Your task to perform on an android device: open app "Gmail" (install if not already installed) Image 0: 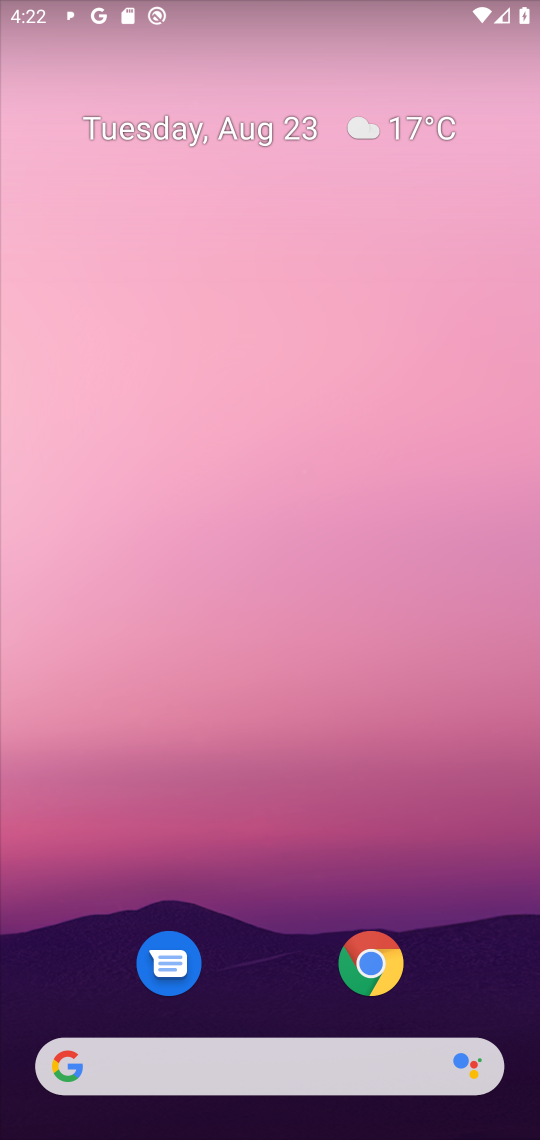
Step 0: press home button
Your task to perform on an android device: open app "Gmail" (install if not already installed) Image 1: 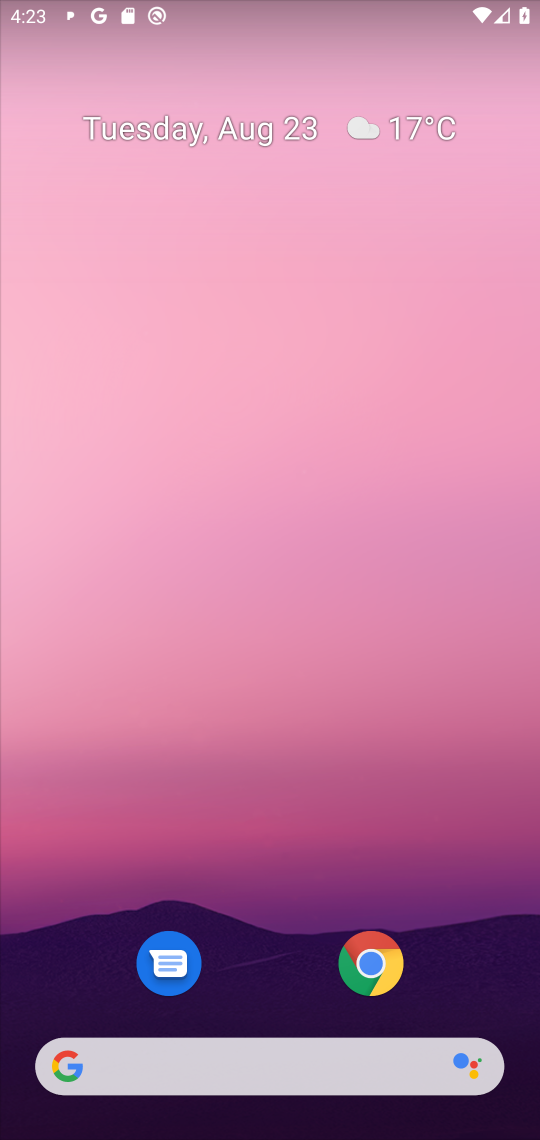
Step 1: drag from (259, 1009) to (173, 29)
Your task to perform on an android device: open app "Gmail" (install if not already installed) Image 2: 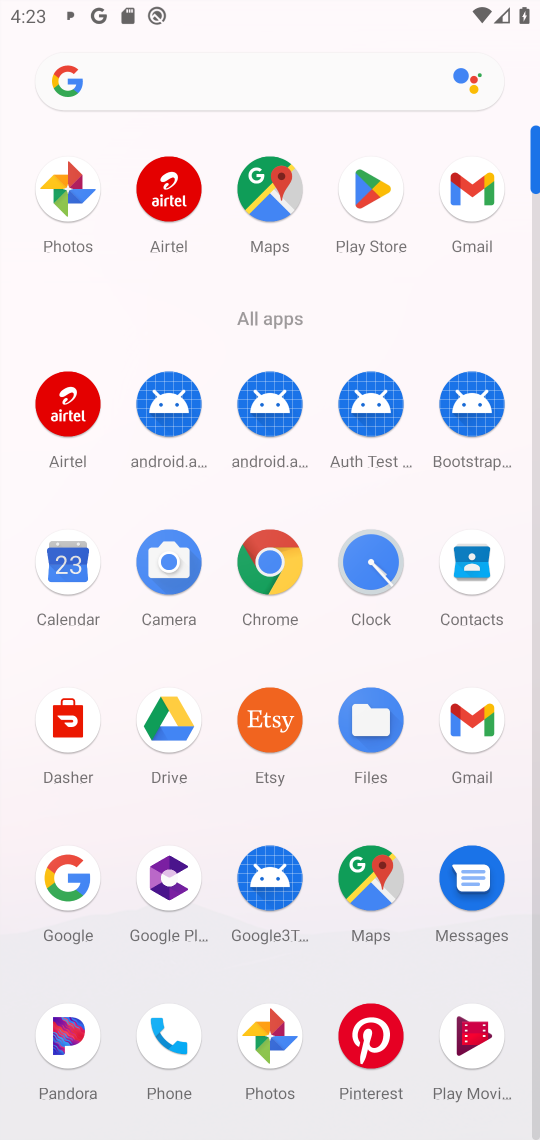
Step 2: click (475, 193)
Your task to perform on an android device: open app "Gmail" (install if not already installed) Image 3: 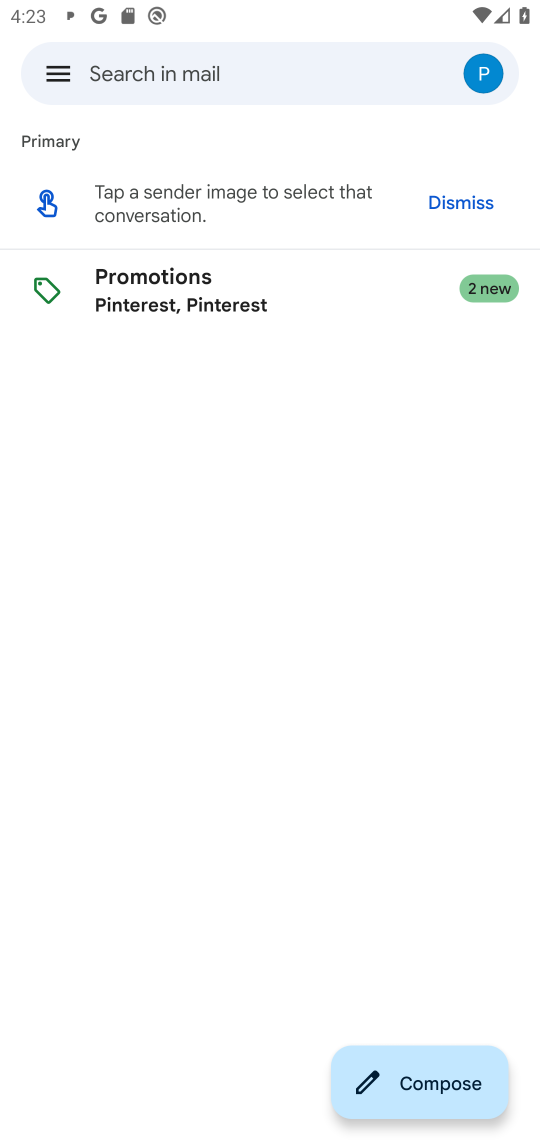
Step 3: press home button
Your task to perform on an android device: open app "Gmail" (install if not already installed) Image 4: 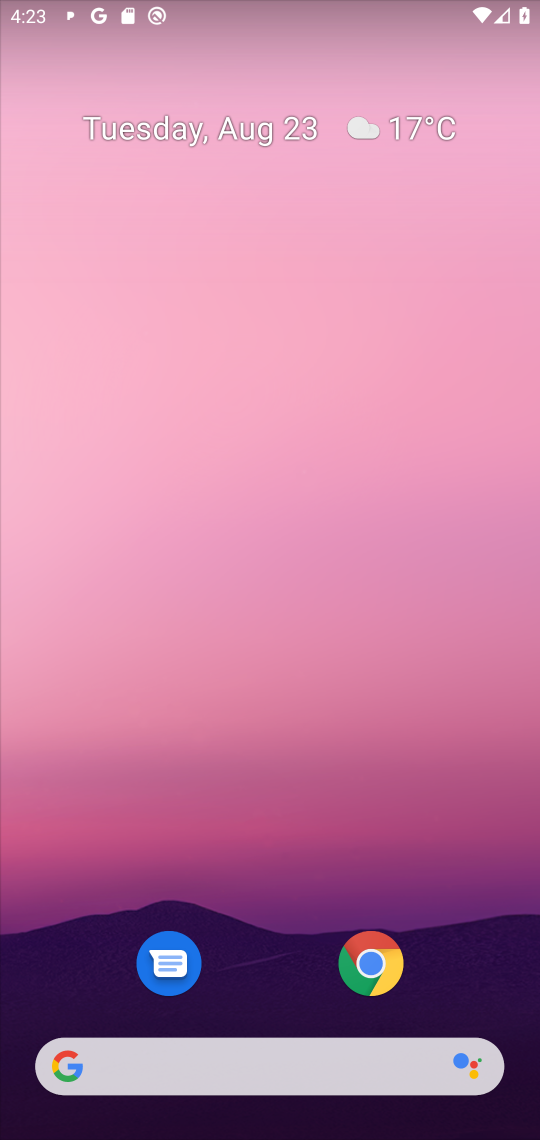
Step 4: drag from (266, 1002) to (235, 37)
Your task to perform on an android device: open app "Gmail" (install if not already installed) Image 5: 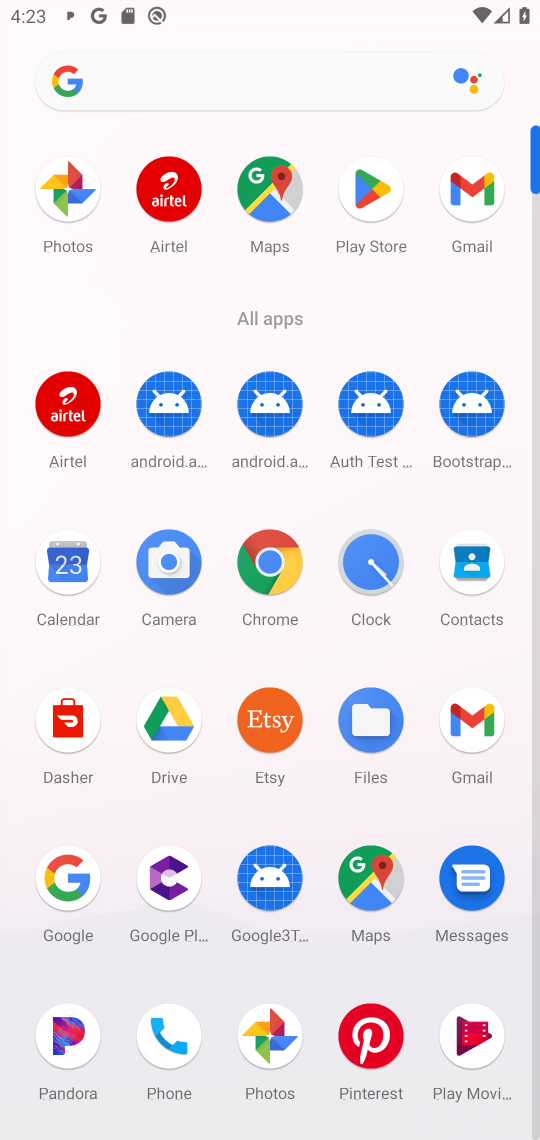
Step 5: click (372, 184)
Your task to perform on an android device: open app "Gmail" (install if not already installed) Image 6: 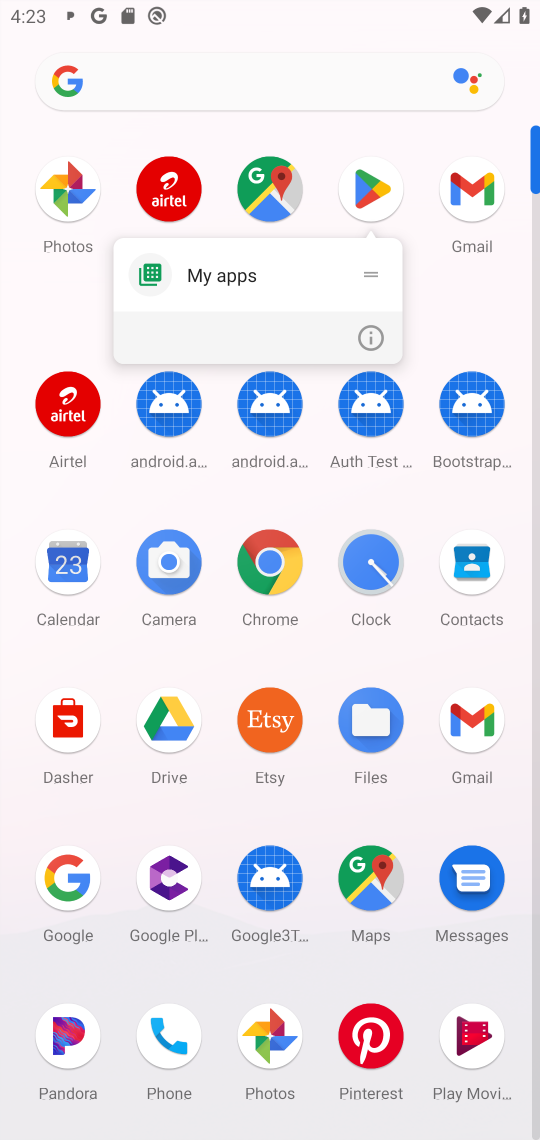
Step 6: click (369, 177)
Your task to perform on an android device: open app "Gmail" (install if not already installed) Image 7: 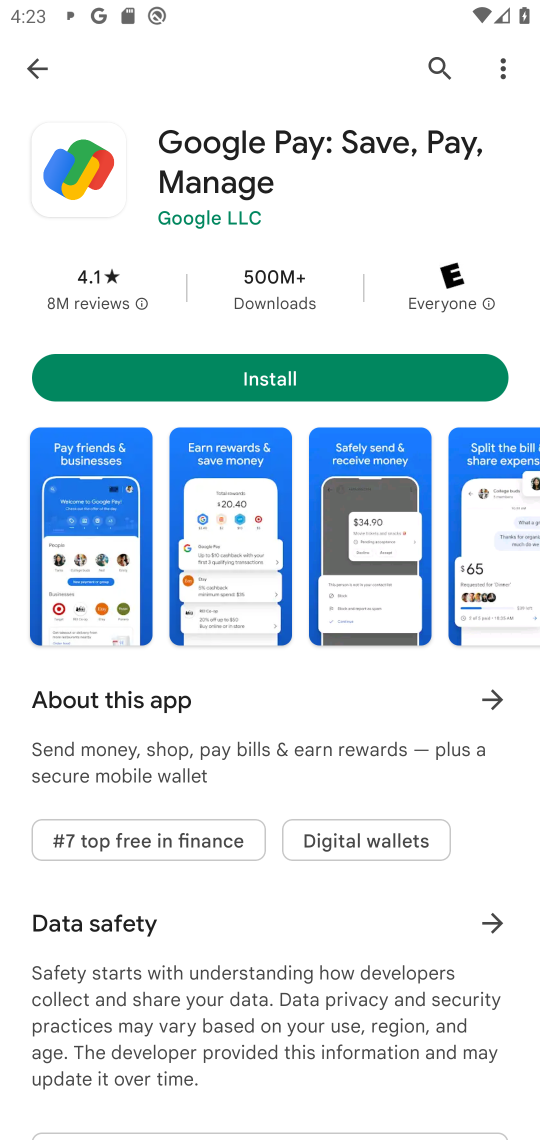
Step 7: click (436, 78)
Your task to perform on an android device: open app "Gmail" (install if not already installed) Image 8: 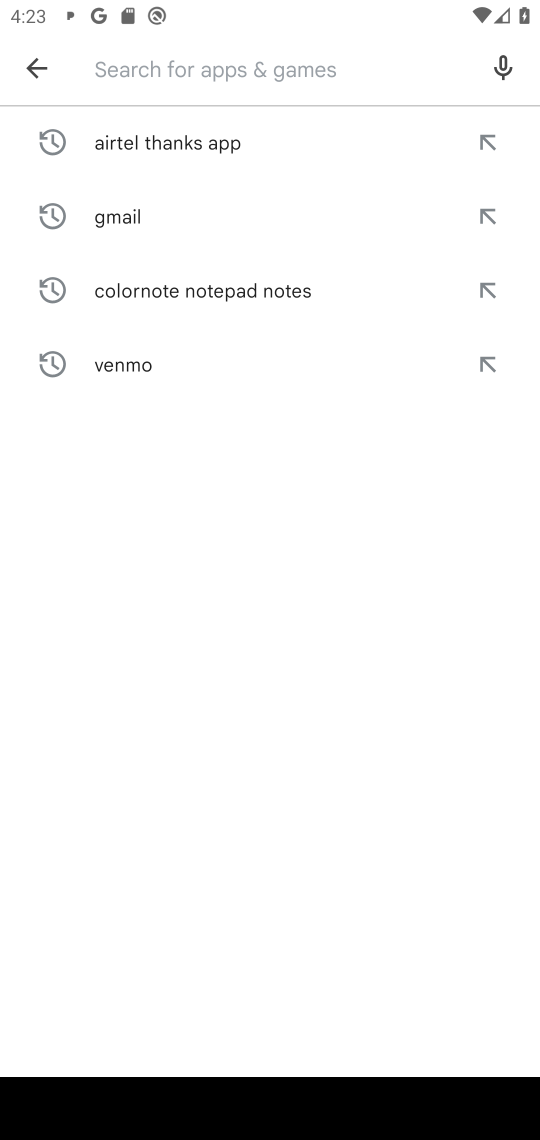
Step 8: click (160, 221)
Your task to perform on an android device: open app "Gmail" (install if not already installed) Image 9: 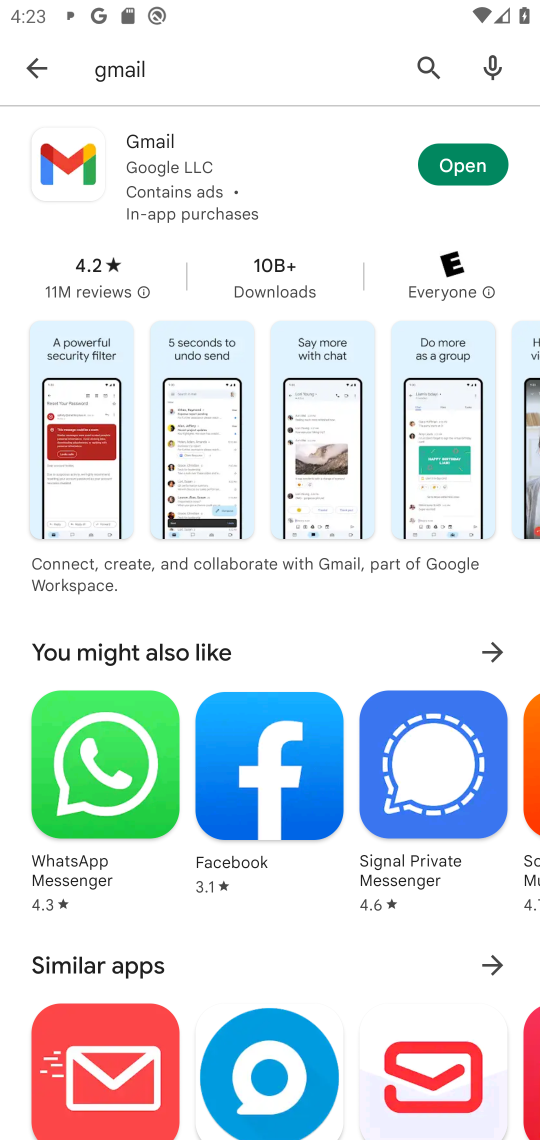
Step 9: click (467, 172)
Your task to perform on an android device: open app "Gmail" (install if not already installed) Image 10: 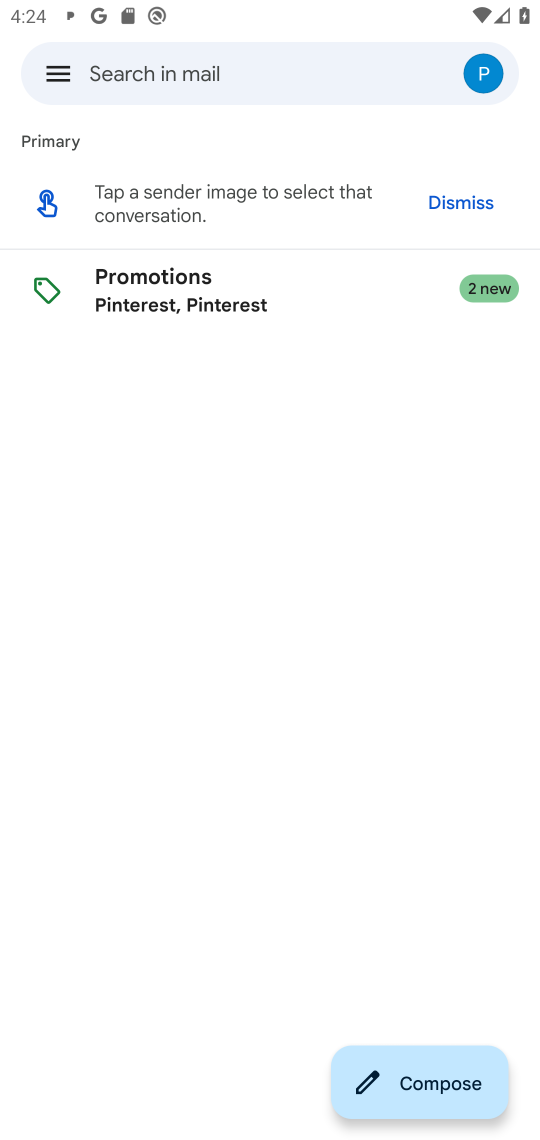
Step 10: task complete